Your task to perform on an android device: open wifi settings Image 0: 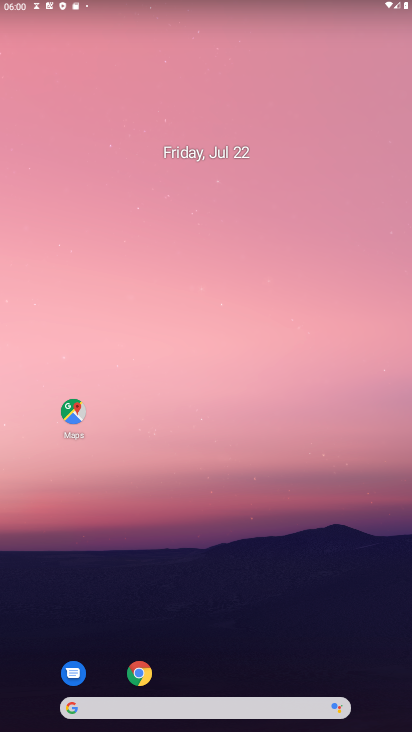
Step 0: press home button
Your task to perform on an android device: open wifi settings Image 1: 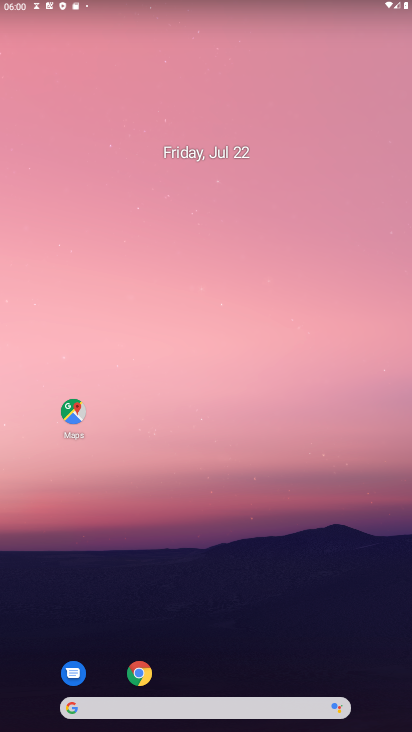
Step 1: drag from (241, 662) to (161, 13)
Your task to perform on an android device: open wifi settings Image 2: 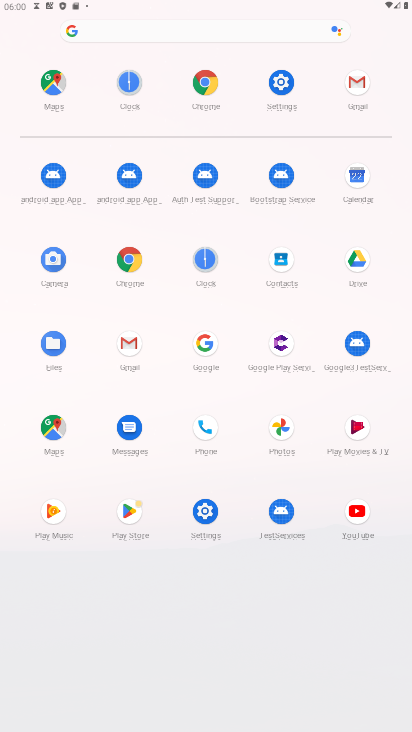
Step 2: click (281, 89)
Your task to perform on an android device: open wifi settings Image 3: 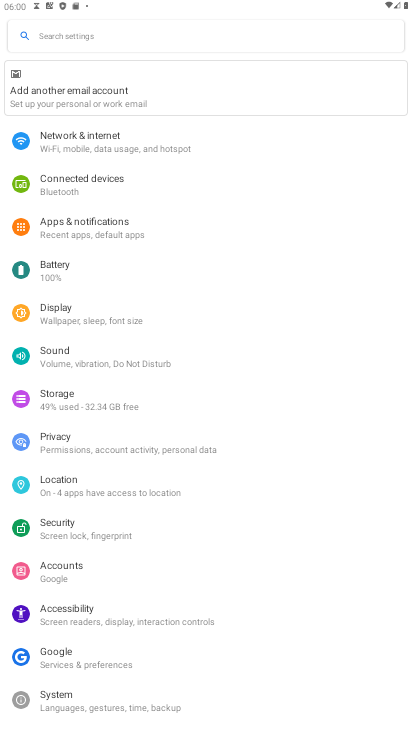
Step 3: click (112, 145)
Your task to perform on an android device: open wifi settings Image 4: 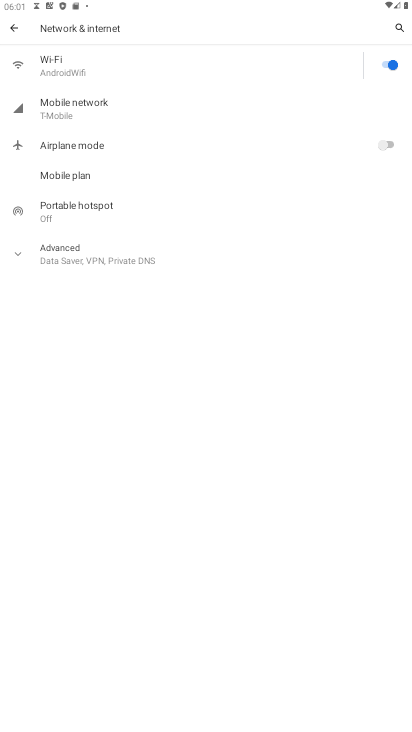
Step 4: click (60, 72)
Your task to perform on an android device: open wifi settings Image 5: 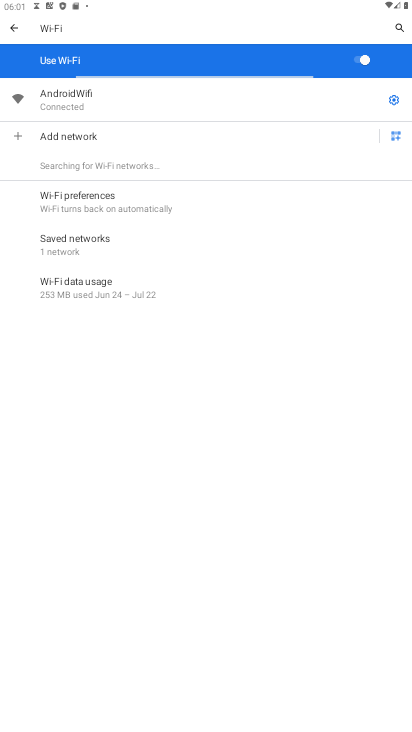
Step 5: task complete